Your task to perform on an android device: turn on translation in the chrome app Image 0: 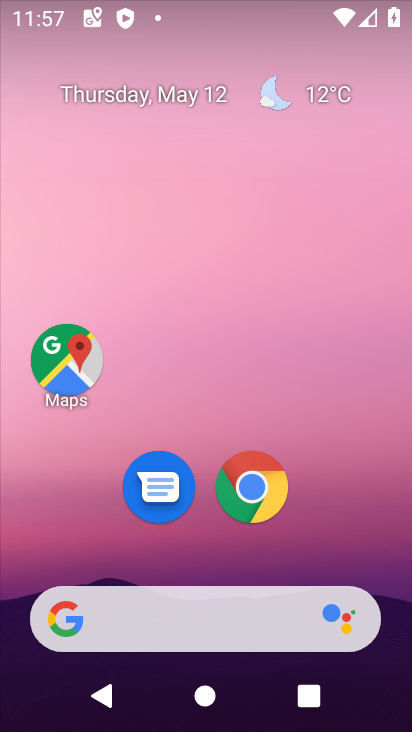
Step 0: click (258, 494)
Your task to perform on an android device: turn on translation in the chrome app Image 1: 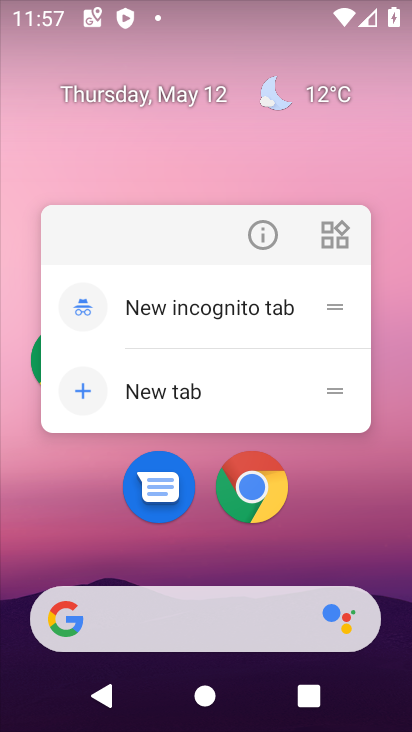
Step 1: click (253, 497)
Your task to perform on an android device: turn on translation in the chrome app Image 2: 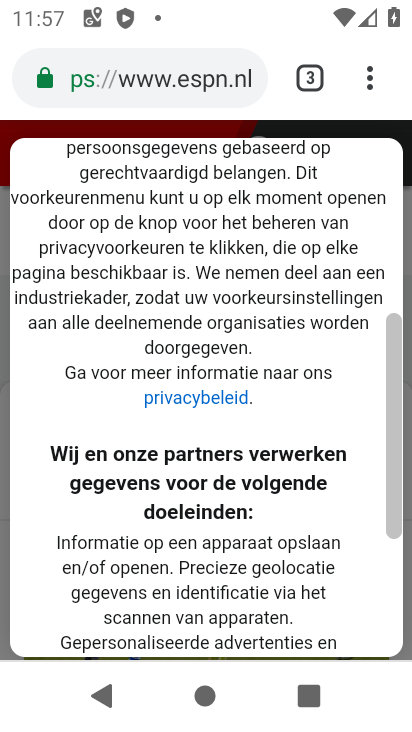
Step 2: drag from (367, 85) to (112, 556)
Your task to perform on an android device: turn on translation in the chrome app Image 3: 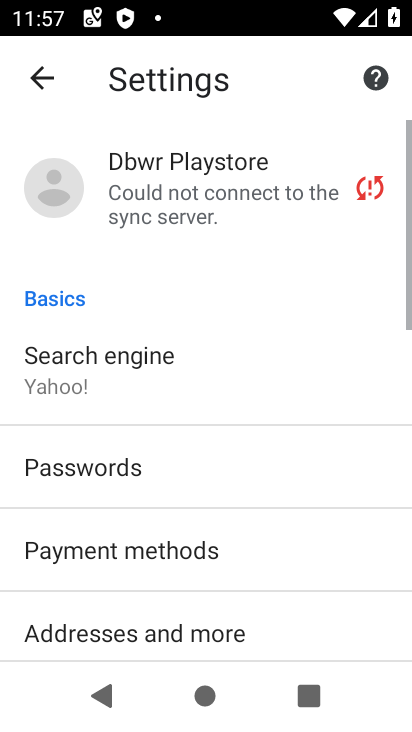
Step 3: drag from (135, 574) to (125, 77)
Your task to perform on an android device: turn on translation in the chrome app Image 4: 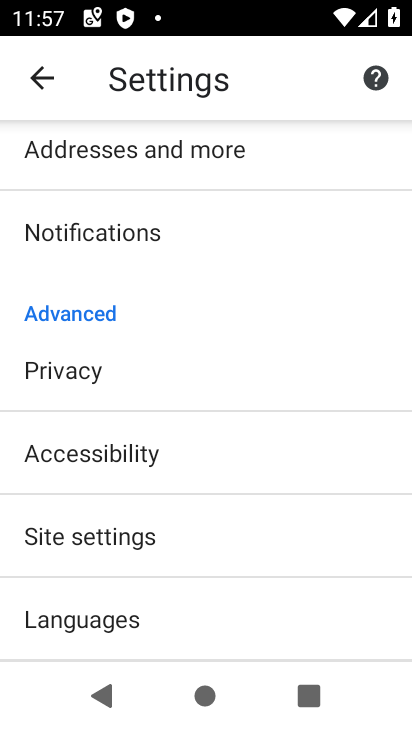
Step 4: drag from (88, 528) to (96, 168)
Your task to perform on an android device: turn on translation in the chrome app Image 5: 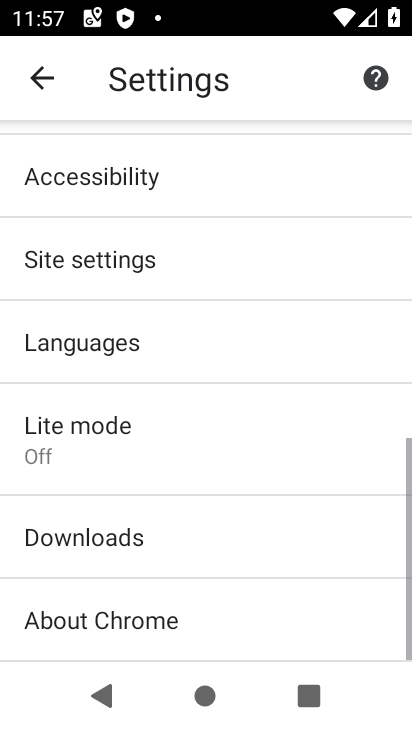
Step 5: click (60, 348)
Your task to perform on an android device: turn on translation in the chrome app Image 6: 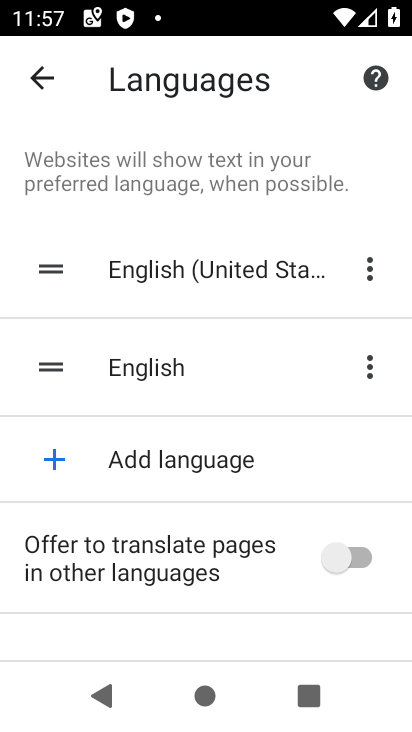
Step 6: click (333, 553)
Your task to perform on an android device: turn on translation in the chrome app Image 7: 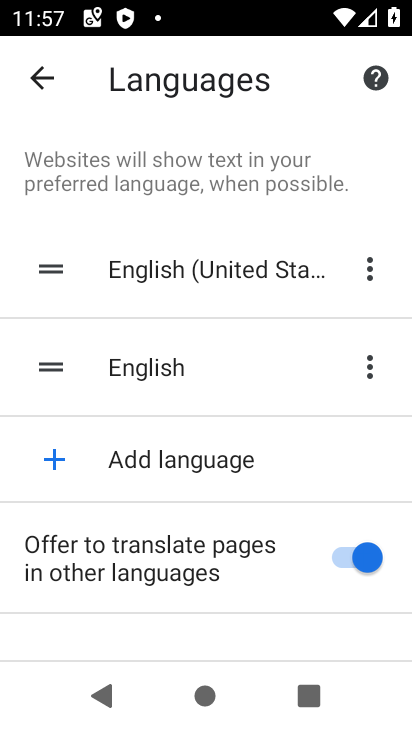
Step 7: task complete